Your task to perform on an android device: Search for seafood restaurants on Google Maps Image 0: 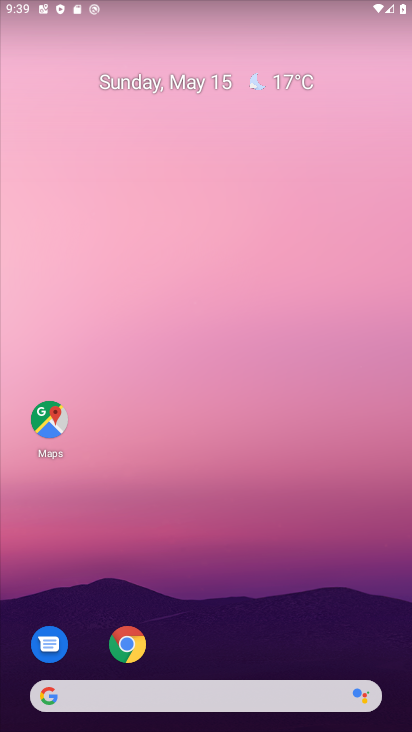
Step 0: drag from (233, 703) to (259, 293)
Your task to perform on an android device: Search for seafood restaurants on Google Maps Image 1: 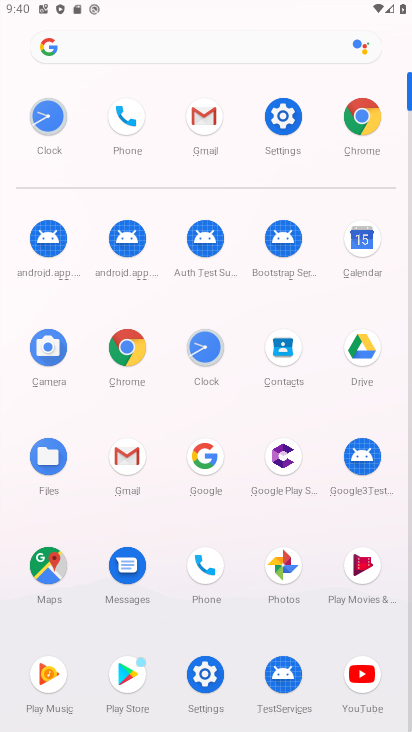
Step 1: click (62, 563)
Your task to perform on an android device: Search for seafood restaurants on Google Maps Image 2: 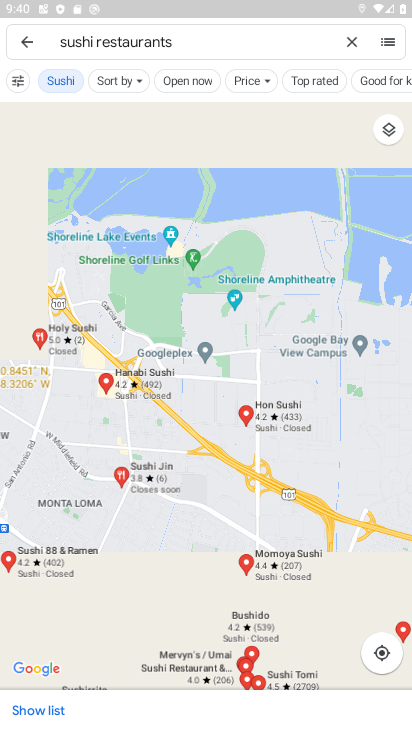
Step 2: click (349, 40)
Your task to perform on an android device: Search for seafood restaurants on Google Maps Image 3: 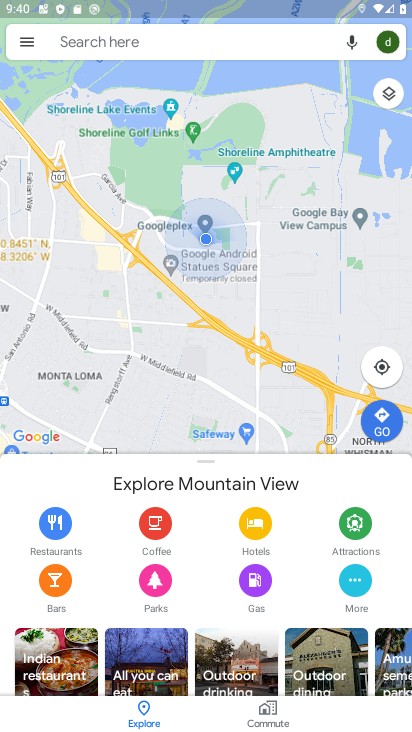
Step 3: click (100, 45)
Your task to perform on an android device: Search for seafood restaurants on Google Maps Image 4: 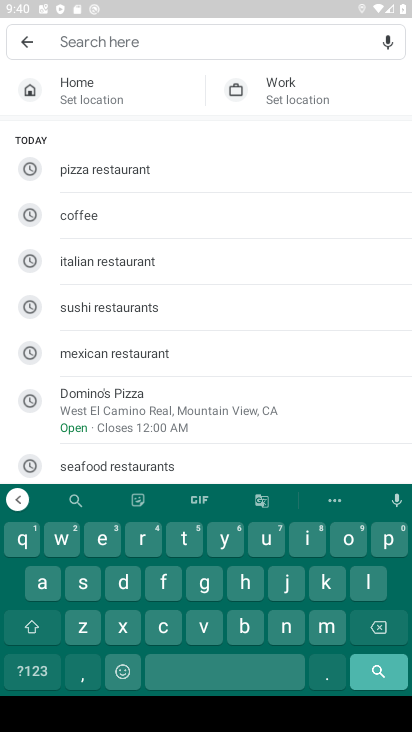
Step 4: click (135, 475)
Your task to perform on an android device: Search for seafood restaurants on Google Maps Image 5: 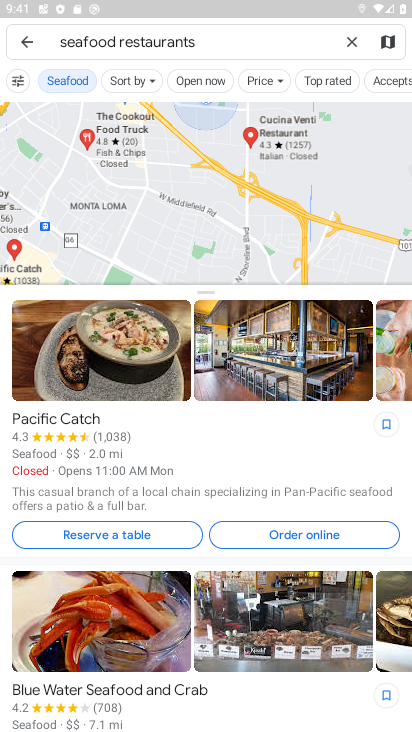
Step 5: task complete